Your task to perform on an android device: Search for the new Air Jordan 13 on Nike.com Image 0: 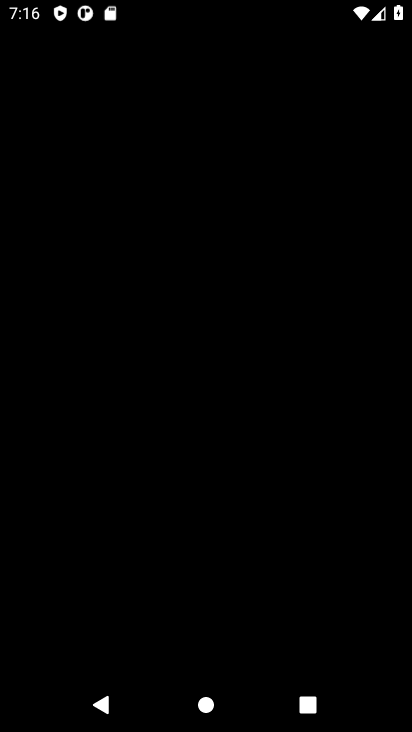
Step 0: press home button
Your task to perform on an android device: Search for the new Air Jordan 13 on Nike.com Image 1: 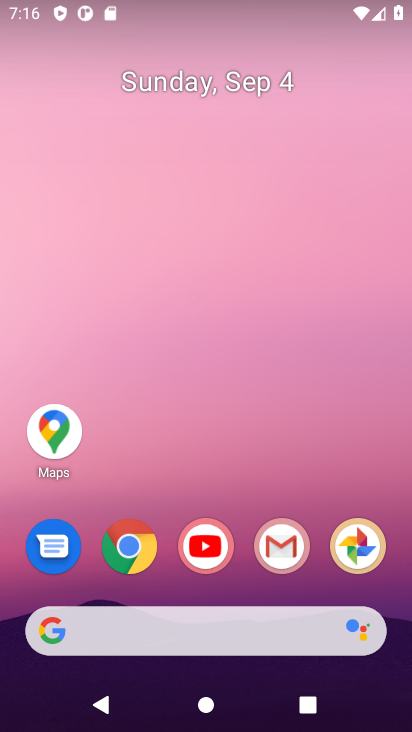
Step 1: click (130, 545)
Your task to perform on an android device: Search for the new Air Jordan 13 on Nike.com Image 2: 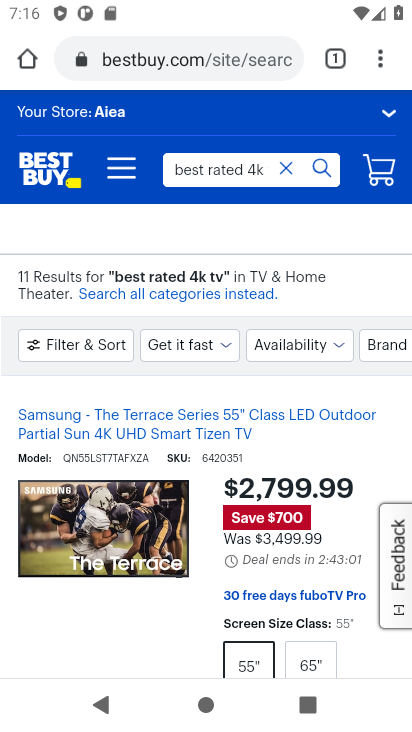
Step 2: click (137, 50)
Your task to perform on an android device: Search for the new Air Jordan 13 on Nike.com Image 3: 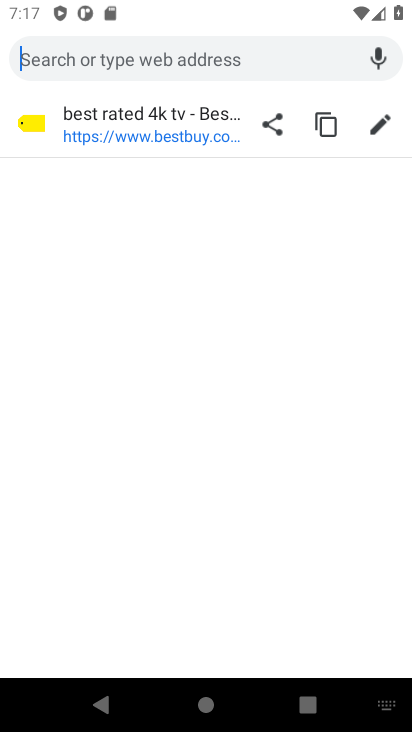
Step 3: type "nike.com"
Your task to perform on an android device: Search for the new Air Jordan 13 on Nike.com Image 4: 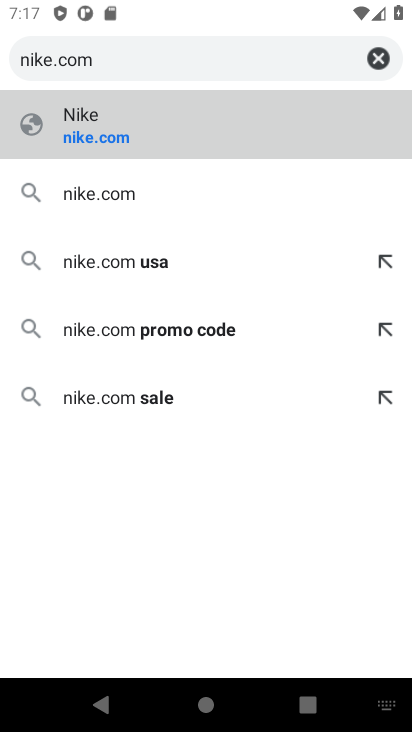
Step 4: click (99, 138)
Your task to perform on an android device: Search for the new Air Jordan 13 on Nike.com Image 5: 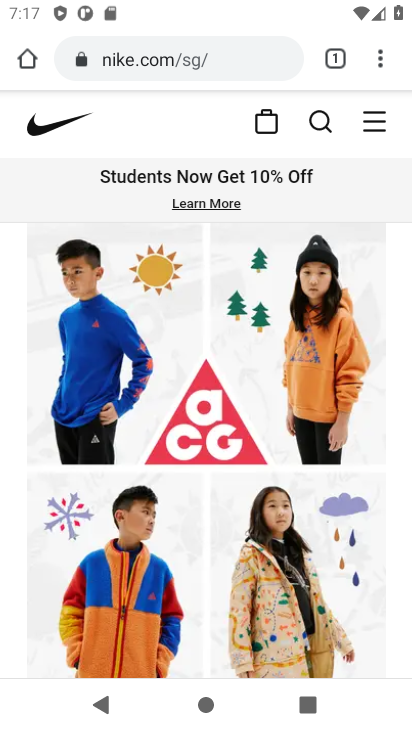
Step 5: click (317, 125)
Your task to perform on an android device: Search for the new Air Jordan 13 on Nike.com Image 6: 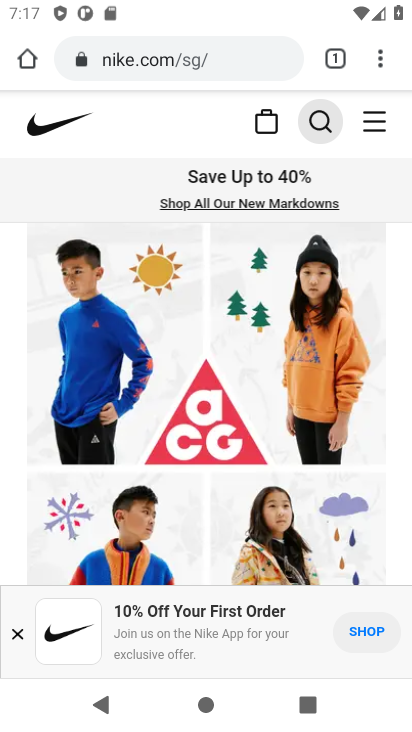
Step 6: click (313, 119)
Your task to perform on an android device: Search for the new Air Jordan 13 on Nike.com Image 7: 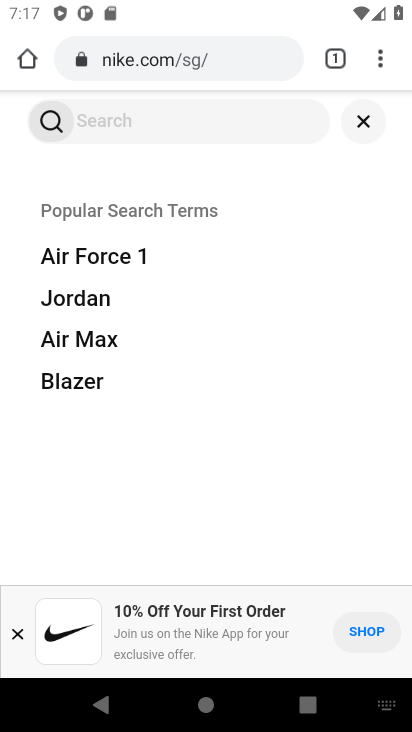
Step 7: click (88, 123)
Your task to perform on an android device: Search for the new Air Jordan 13 on Nike.com Image 8: 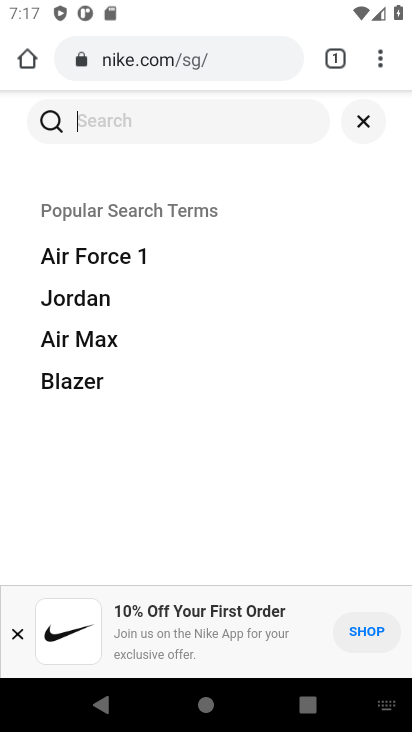
Step 8: type "new Air Jordan 13 "
Your task to perform on an android device: Search for the new Air Jordan 13 on Nike.com Image 9: 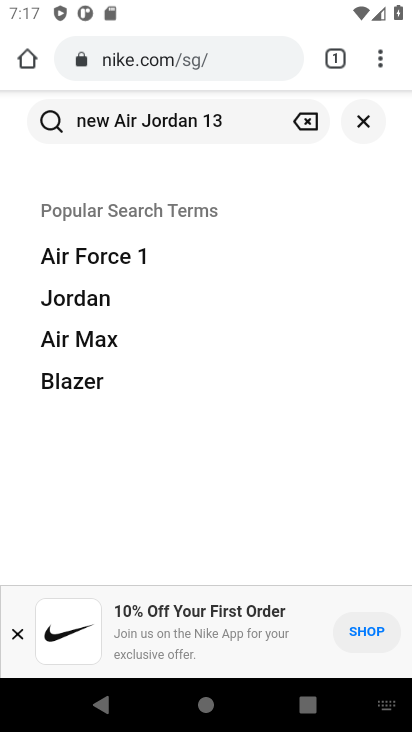
Step 9: click (47, 125)
Your task to perform on an android device: Search for the new Air Jordan 13 on Nike.com Image 10: 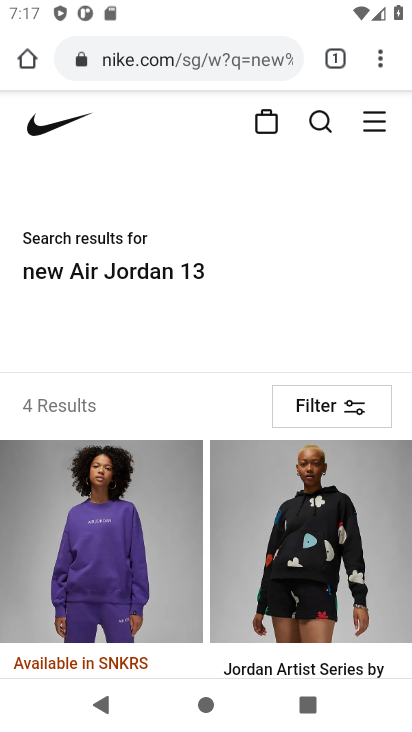
Step 10: task complete